Your task to perform on an android device: Search for Mexican restaurants on Maps Image 0: 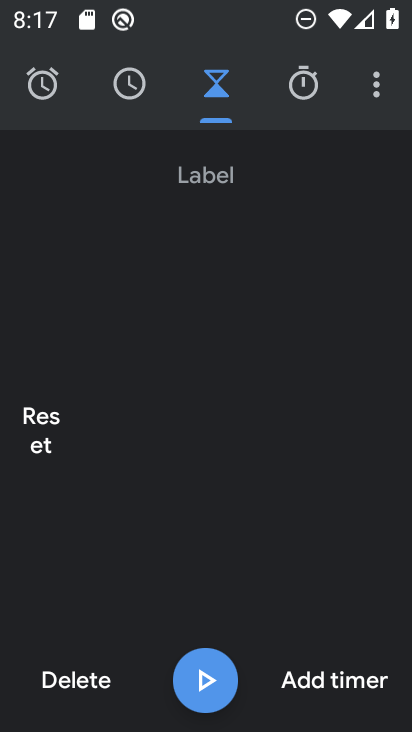
Step 0: press home button
Your task to perform on an android device: Search for Mexican restaurants on Maps Image 1: 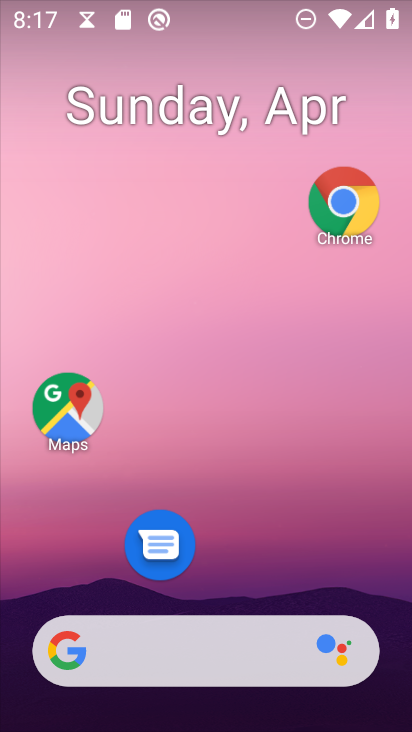
Step 1: drag from (191, 590) to (345, 98)
Your task to perform on an android device: Search for Mexican restaurants on Maps Image 2: 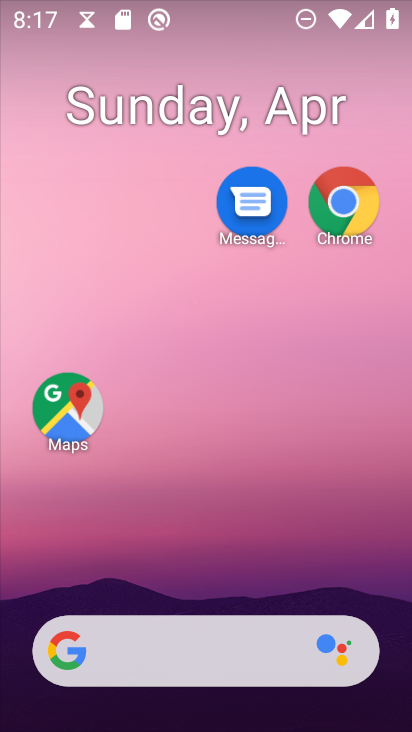
Step 2: drag from (213, 656) to (379, 114)
Your task to perform on an android device: Search for Mexican restaurants on Maps Image 3: 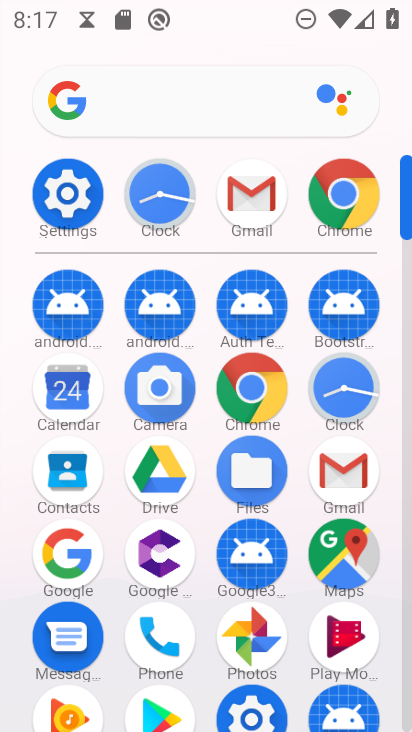
Step 3: click (343, 568)
Your task to perform on an android device: Search for Mexican restaurants on Maps Image 4: 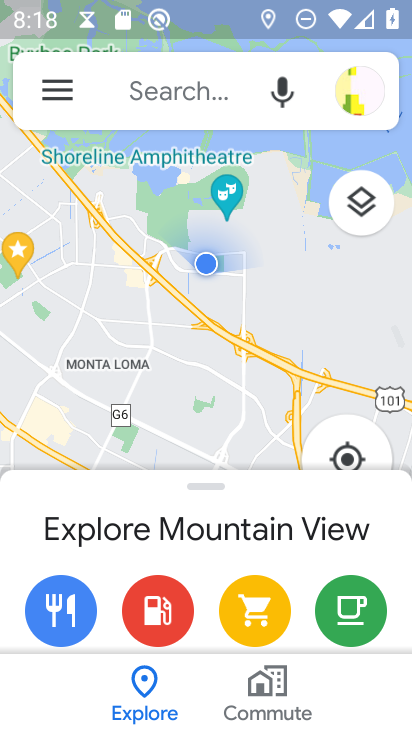
Step 4: click (189, 82)
Your task to perform on an android device: Search for Mexican restaurants on Maps Image 5: 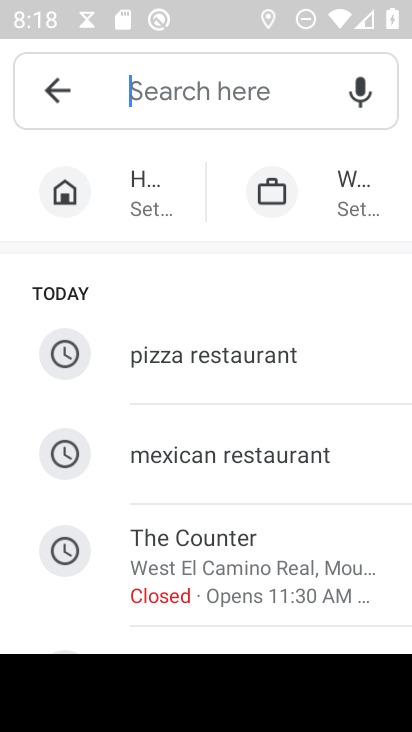
Step 5: click (275, 462)
Your task to perform on an android device: Search for Mexican restaurants on Maps Image 6: 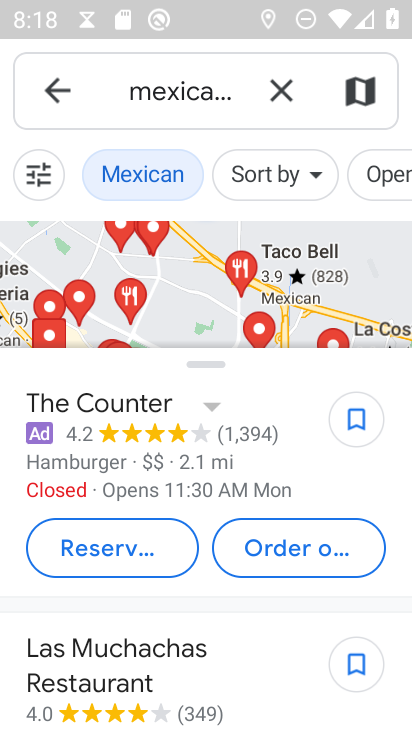
Step 6: task complete